Your task to perform on an android device: Go to calendar. Show me events next week Image 0: 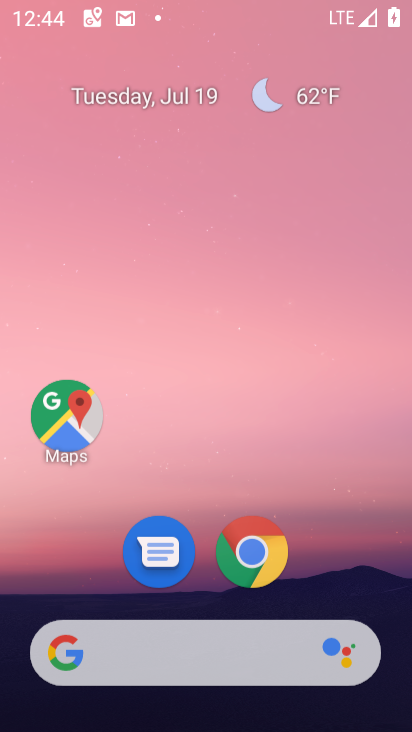
Step 0: drag from (255, 341) to (283, 202)
Your task to perform on an android device: Go to calendar. Show me events next week Image 1: 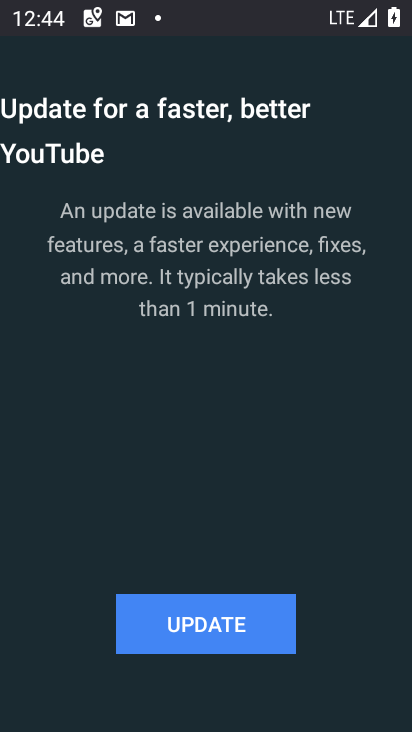
Step 1: press home button
Your task to perform on an android device: Go to calendar. Show me events next week Image 2: 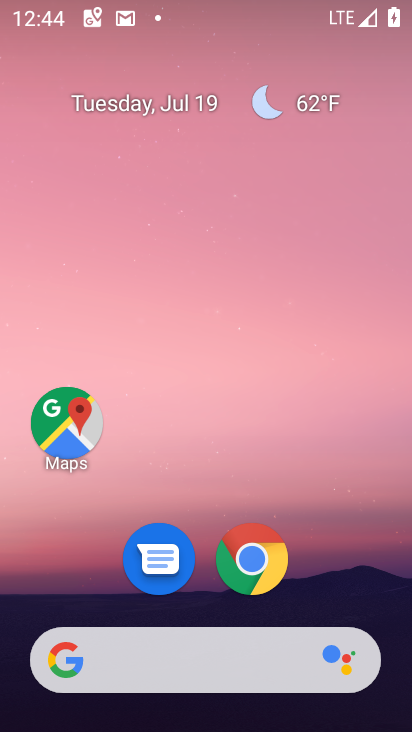
Step 2: drag from (245, 631) to (281, 177)
Your task to perform on an android device: Go to calendar. Show me events next week Image 3: 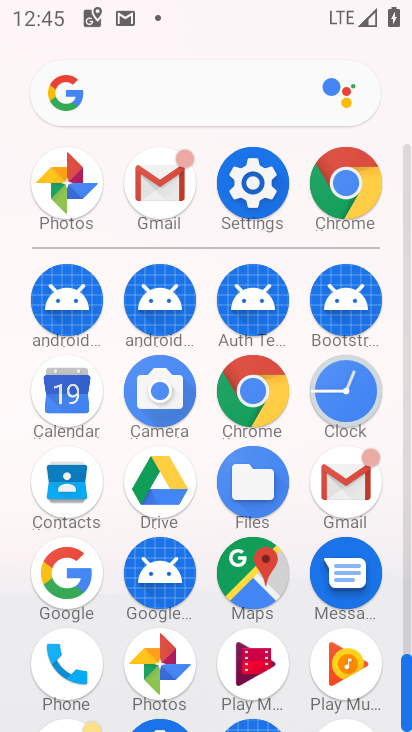
Step 3: click (77, 399)
Your task to perform on an android device: Go to calendar. Show me events next week Image 4: 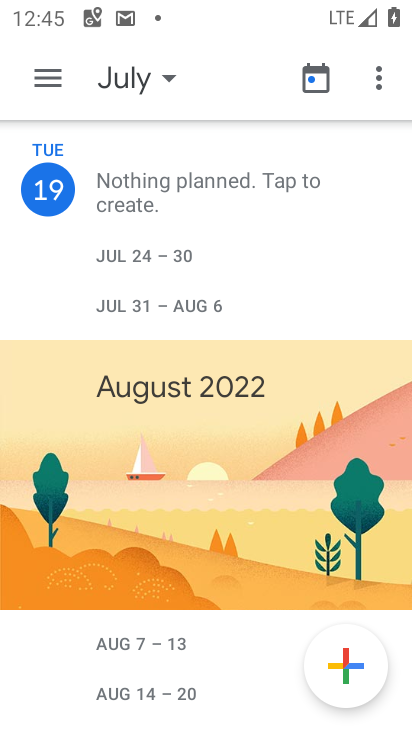
Step 4: click (169, 87)
Your task to perform on an android device: Go to calendar. Show me events next week Image 5: 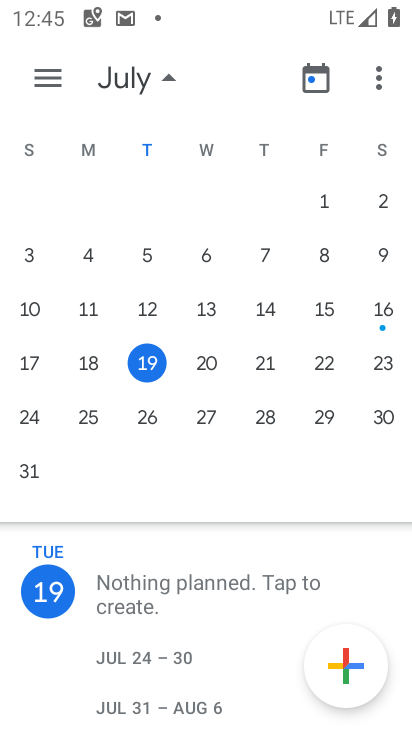
Step 5: click (146, 421)
Your task to perform on an android device: Go to calendar. Show me events next week Image 6: 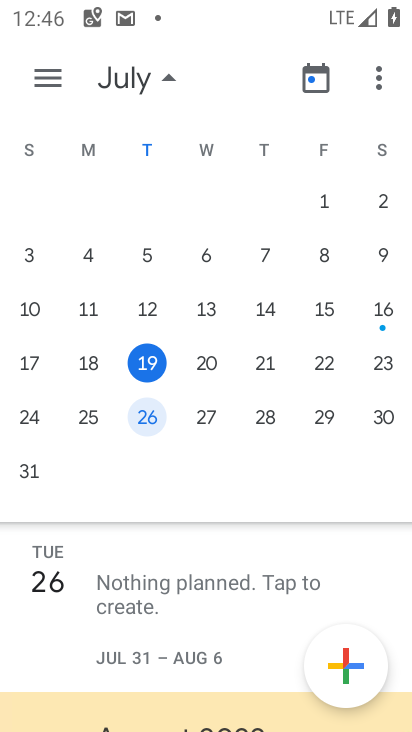
Step 6: click (147, 421)
Your task to perform on an android device: Go to calendar. Show me events next week Image 7: 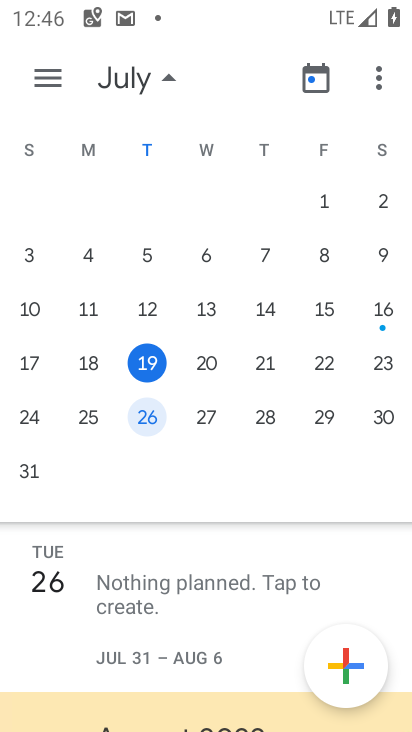
Step 7: task complete